Your task to perform on an android device: Is it going to rain this weekend? Image 0: 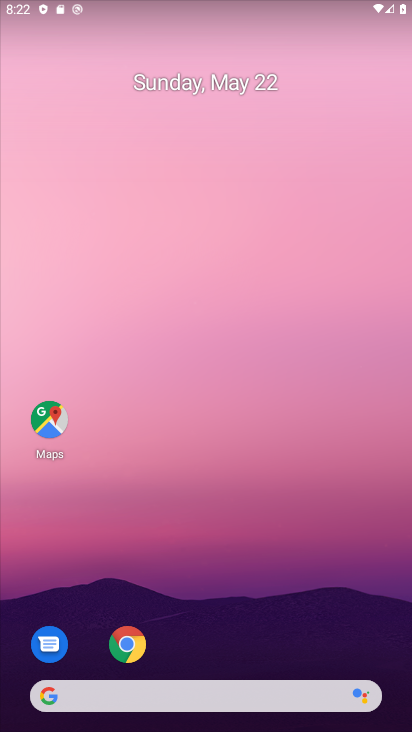
Step 0: drag from (37, 342) to (401, 295)
Your task to perform on an android device: Is it going to rain this weekend? Image 1: 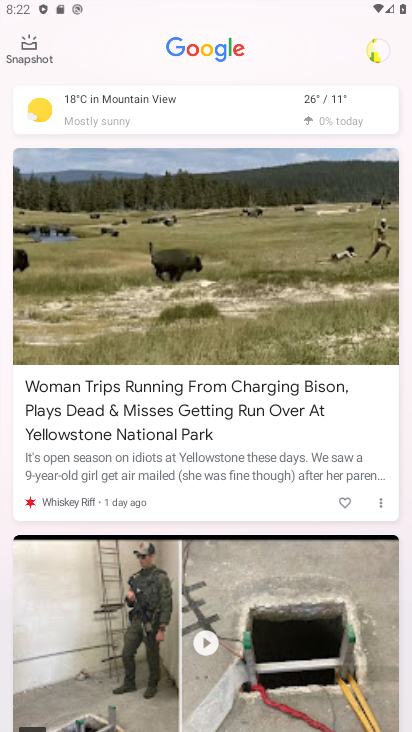
Step 1: click (52, 114)
Your task to perform on an android device: Is it going to rain this weekend? Image 2: 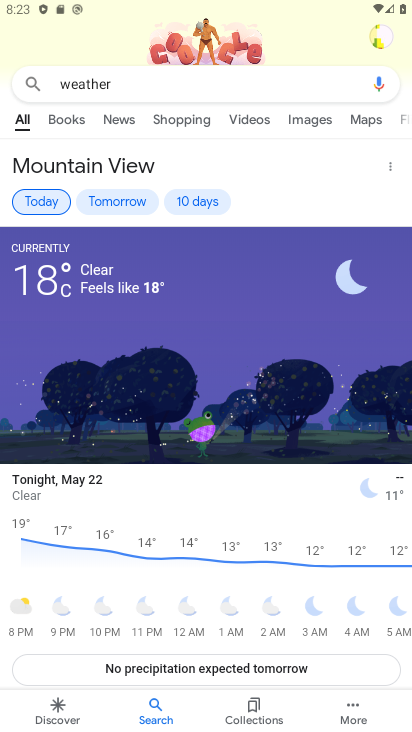
Step 2: click (201, 202)
Your task to perform on an android device: Is it going to rain this weekend? Image 3: 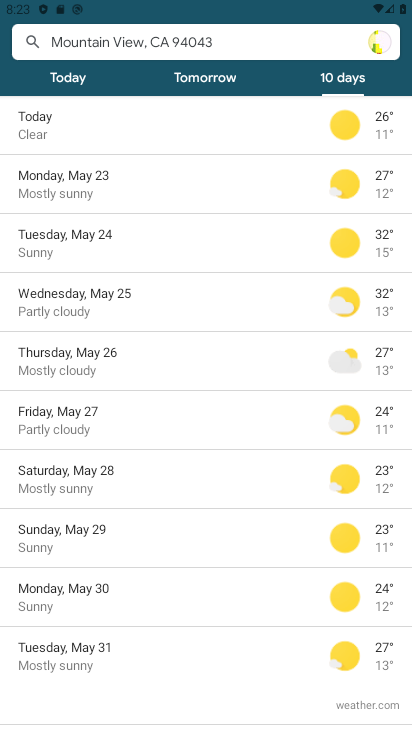
Step 3: task complete